Your task to perform on an android device: turn off priority inbox in the gmail app Image 0: 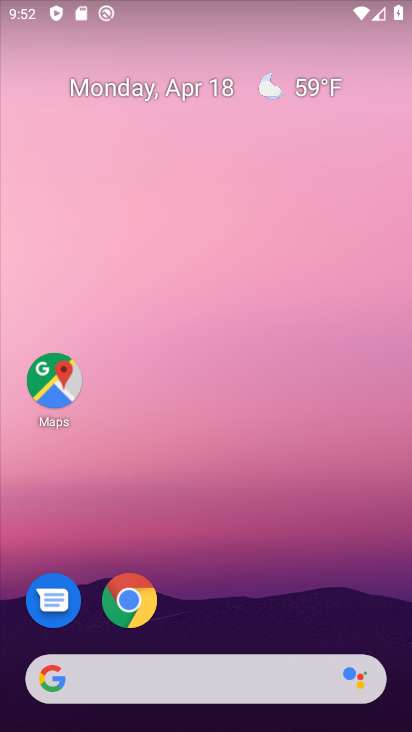
Step 0: drag from (195, 327) to (155, 0)
Your task to perform on an android device: turn off priority inbox in the gmail app Image 1: 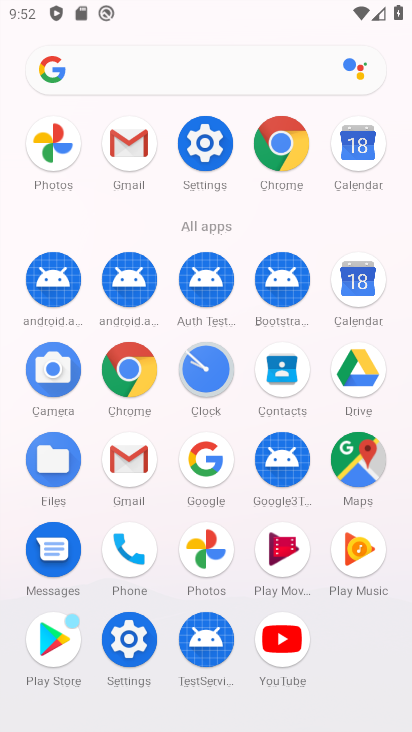
Step 1: click (119, 153)
Your task to perform on an android device: turn off priority inbox in the gmail app Image 2: 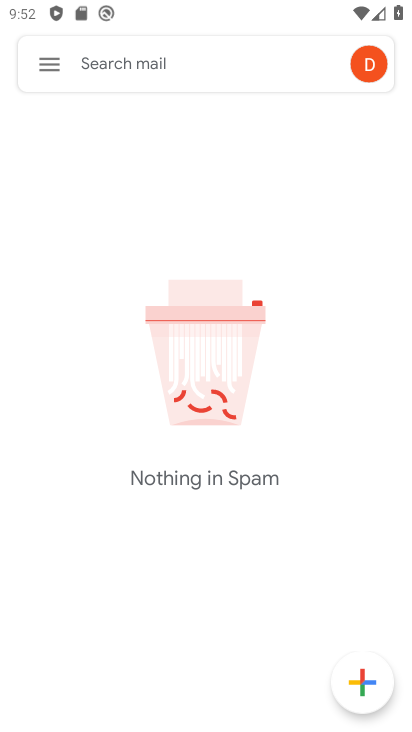
Step 2: click (45, 63)
Your task to perform on an android device: turn off priority inbox in the gmail app Image 3: 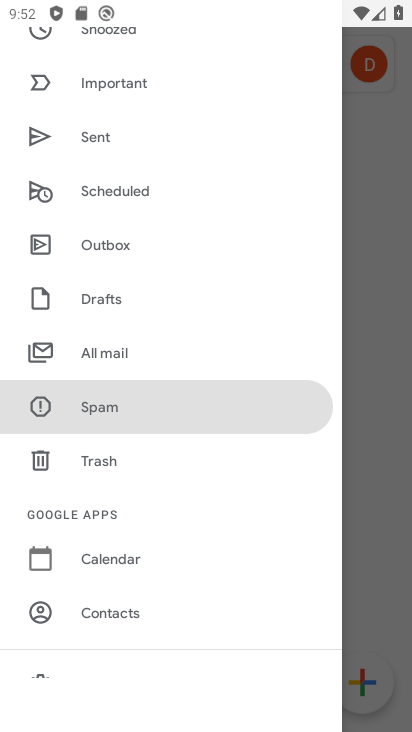
Step 3: drag from (206, 604) to (190, 111)
Your task to perform on an android device: turn off priority inbox in the gmail app Image 4: 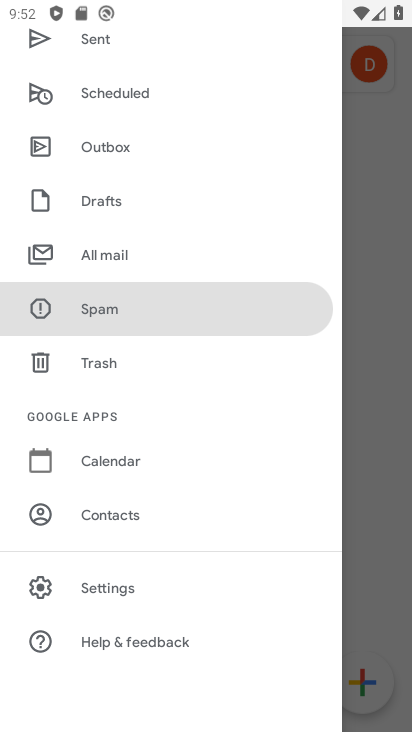
Step 4: click (117, 585)
Your task to perform on an android device: turn off priority inbox in the gmail app Image 5: 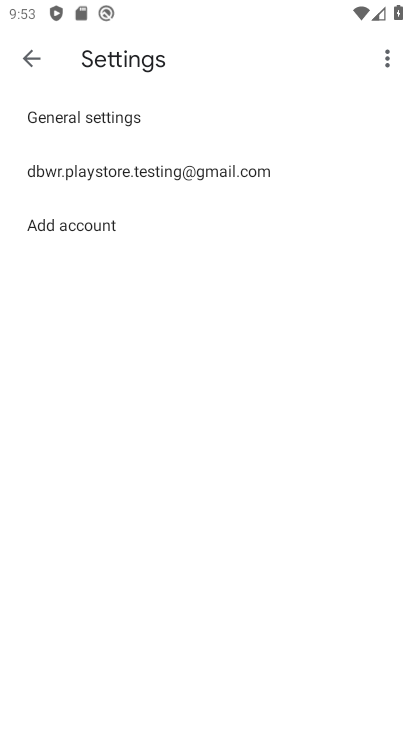
Step 5: click (100, 168)
Your task to perform on an android device: turn off priority inbox in the gmail app Image 6: 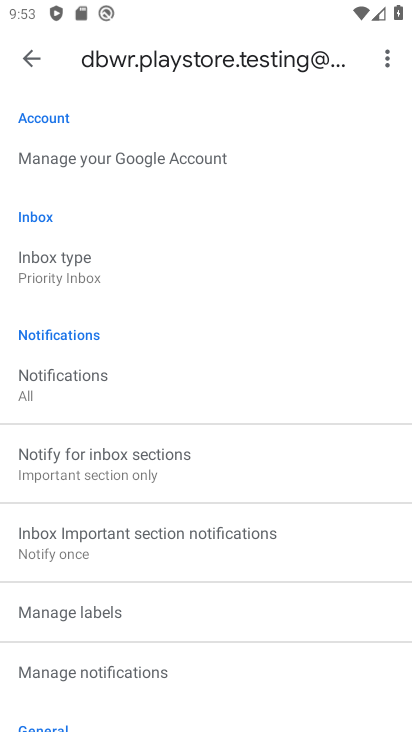
Step 6: click (55, 265)
Your task to perform on an android device: turn off priority inbox in the gmail app Image 7: 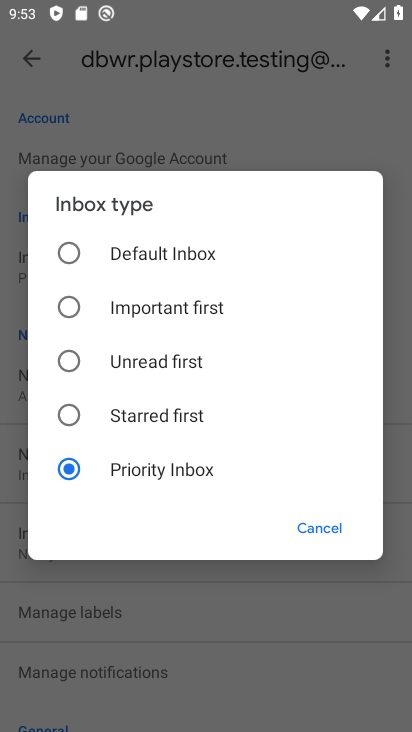
Step 7: click (67, 256)
Your task to perform on an android device: turn off priority inbox in the gmail app Image 8: 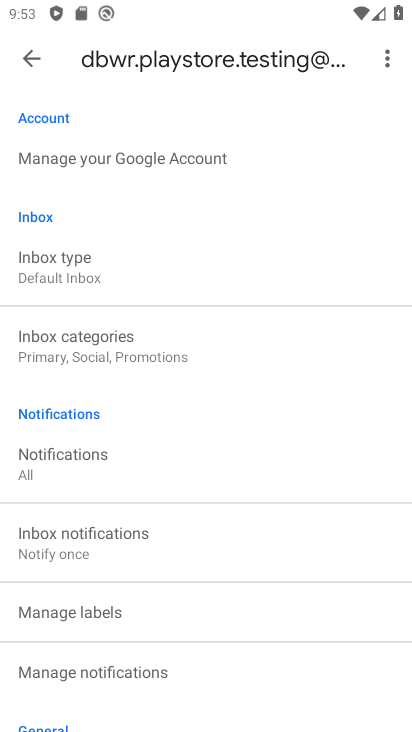
Step 8: task complete